Your task to perform on an android device: visit the assistant section in the google photos Image 0: 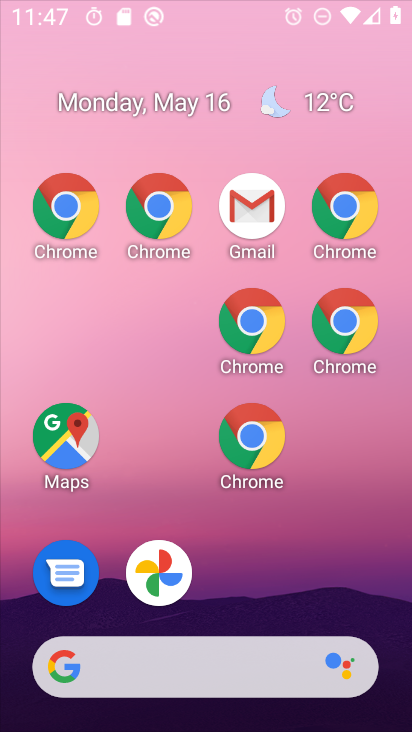
Step 0: drag from (380, 600) to (317, 268)
Your task to perform on an android device: visit the assistant section in the google photos Image 1: 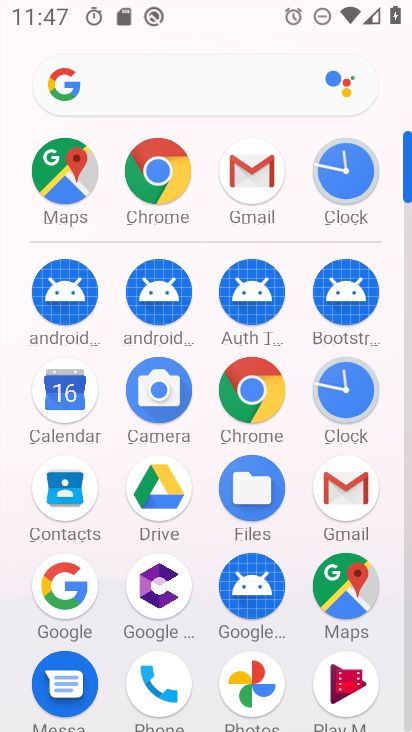
Step 1: click (249, 684)
Your task to perform on an android device: visit the assistant section in the google photos Image 2: 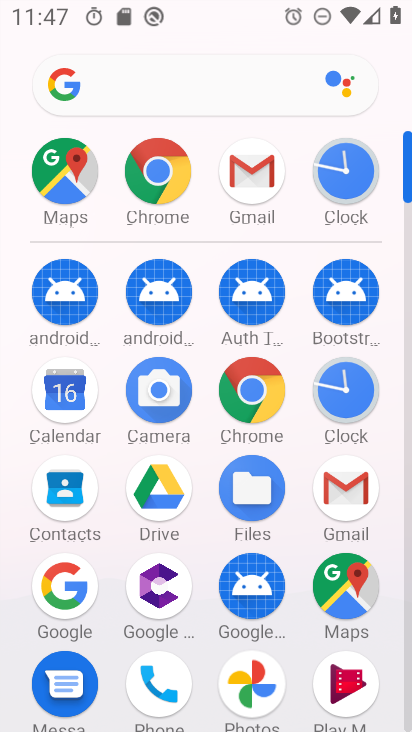
Step 2: click (253, 675)
Your task to perform on an android device: visit the assistant section in the google photos Image 3: 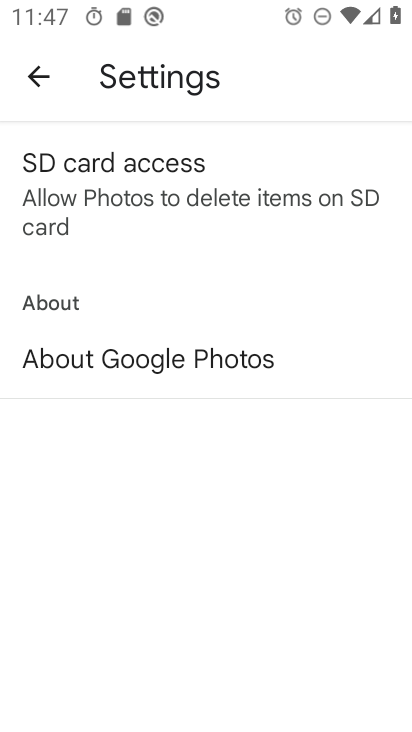
Step 3: click (28, 82)
Your task to perform on an android device: visit the assistant section in the google photos Image 4: 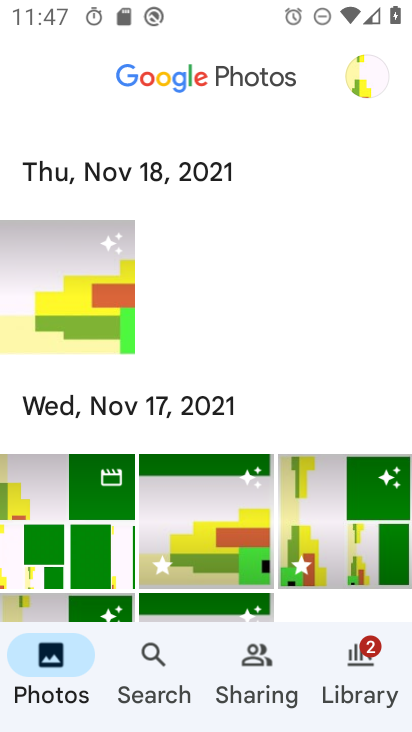
Step 4: task complete